Your task to perform on an android device: toggle show notifications on the lock screen Image 0: 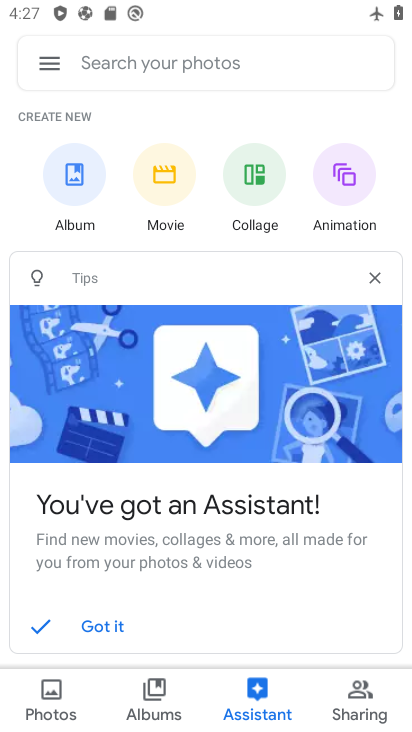
Step 0: press home button
Your task to perform on an android device: toggle show notifications on the lock screen Image 1: 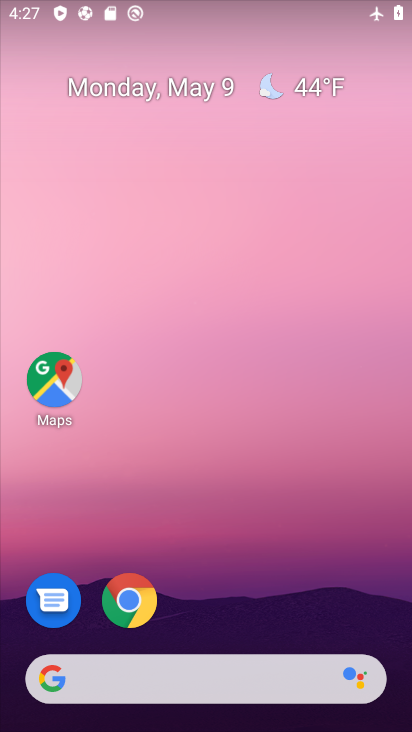
Step 1: drag from (244, 567) to (274, 0)
Your task to perform on an android device: toggle show notifications on the lock screen Image 2: 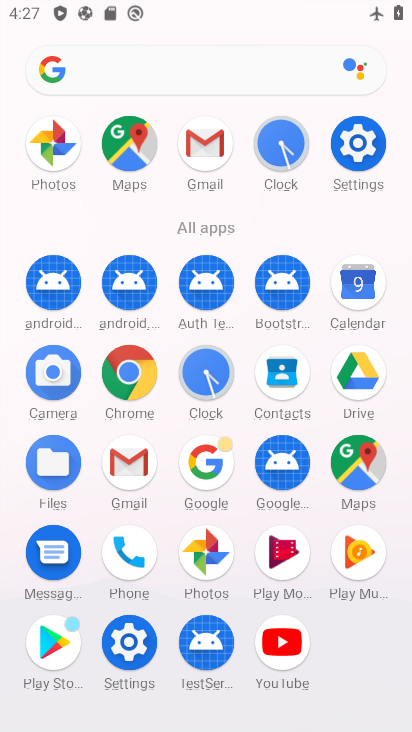
Step 2: click (365, 133)
Your task to perform on an android device: toggle show notifications on the lock screen Image 3: 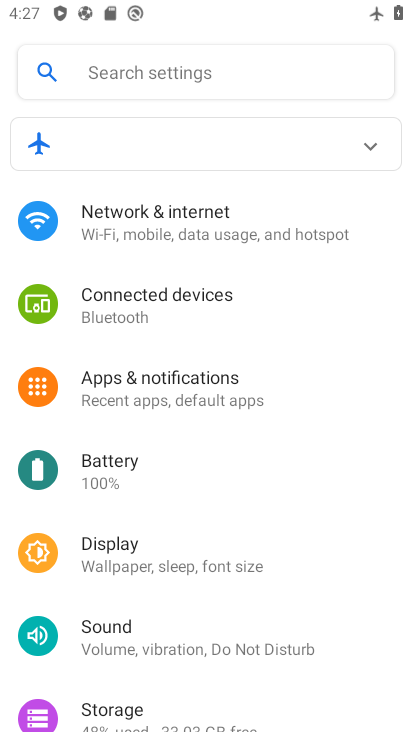
Step 3: click (174, 390)
Your task to perform on an android device: toggle show notifications on the lock screen Image 4: 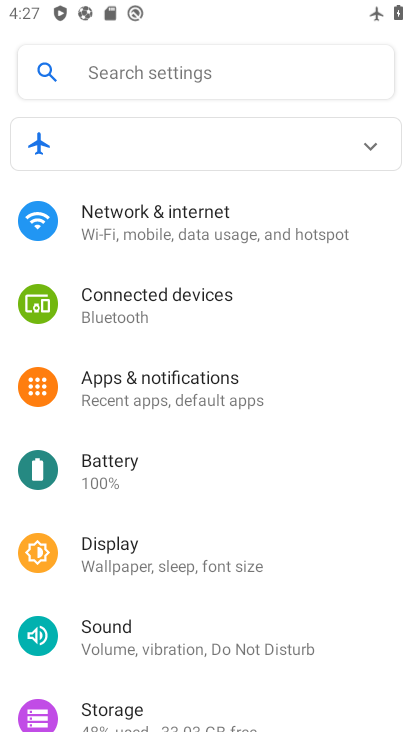
Step 4: click (185, 380)
Your task to perform on an android device: toggle show notifications on the lock screen Image 5: 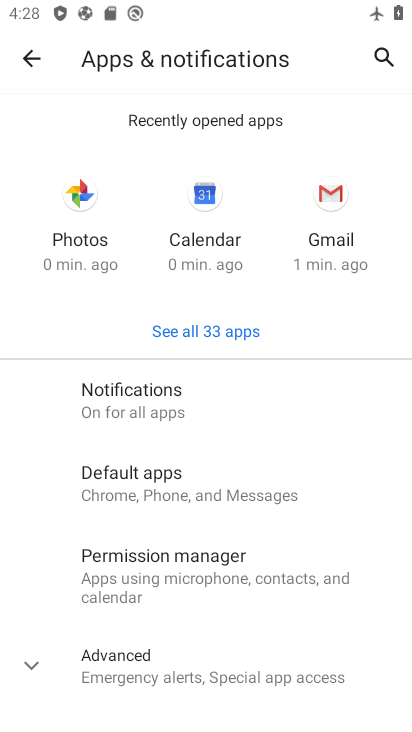
Step 5: click (153, 400)
Your task to perform on an android device: toggle show notifications on the lock screen Image 6: 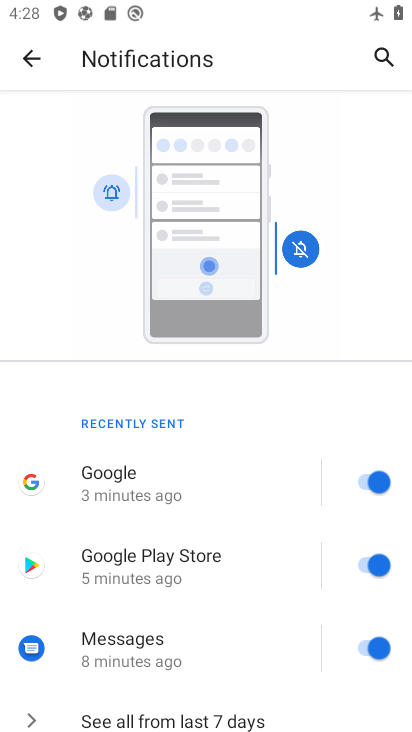
Step 6: drag from (250, 604) to (366, 63)
Your task to perform on an android device: toggle show notifications on the lock screen Image 7: 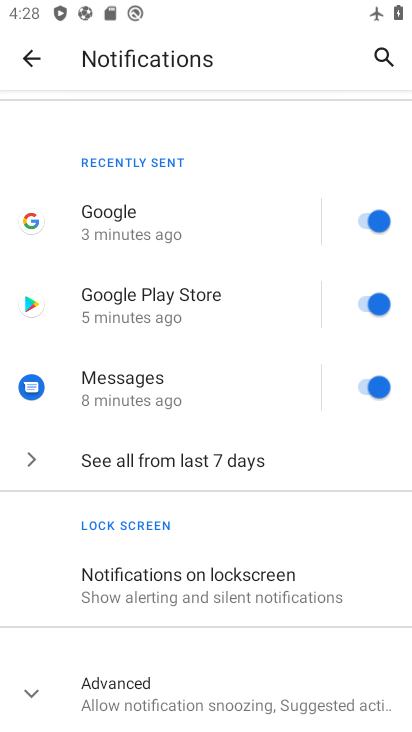
Step 7: click (232, 594)
Your task to perform on an android device: toggle show notifications on the lock screen Image 8: 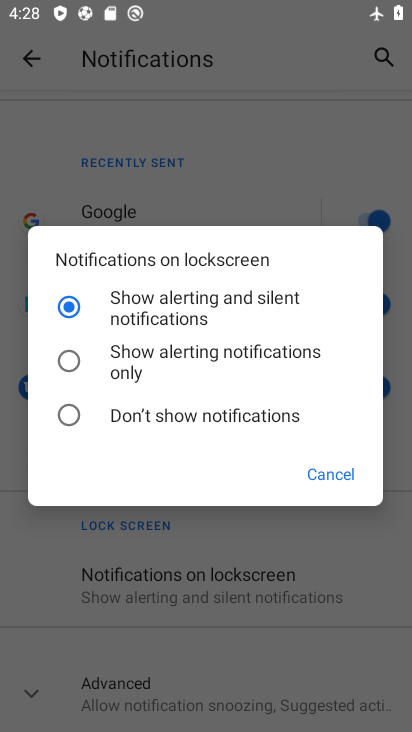
Step 8: click (62, 407)
Your task to perform on an android device: toggle show notifications on the lock screen Image 9: 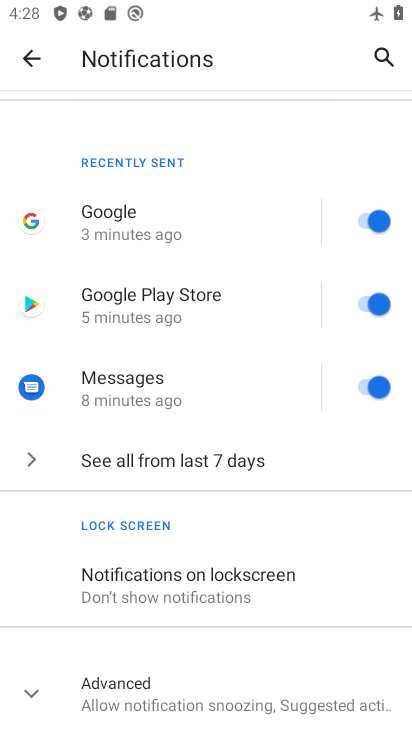
Step 9: task complete